Your task to perform on an android device: Go to Maps Image 0: 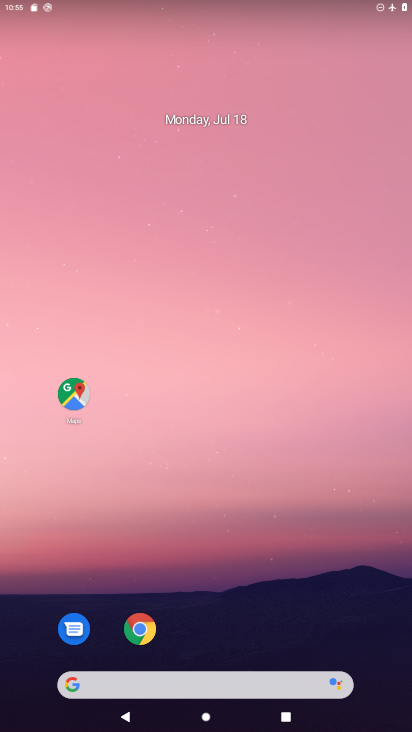
Step 0: drag from (301, 600) to (213, 99)
Your task to perform on an android device: Go to Maps Image 1: 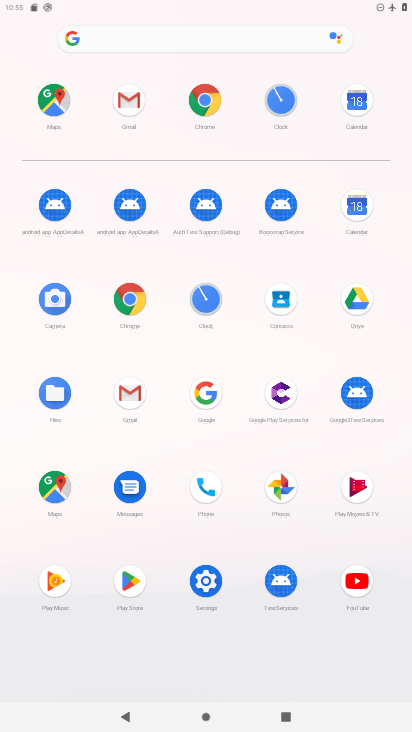
Step 1: click (60, 106)
Your task to perform on an android device: Go to Maps Image 2: 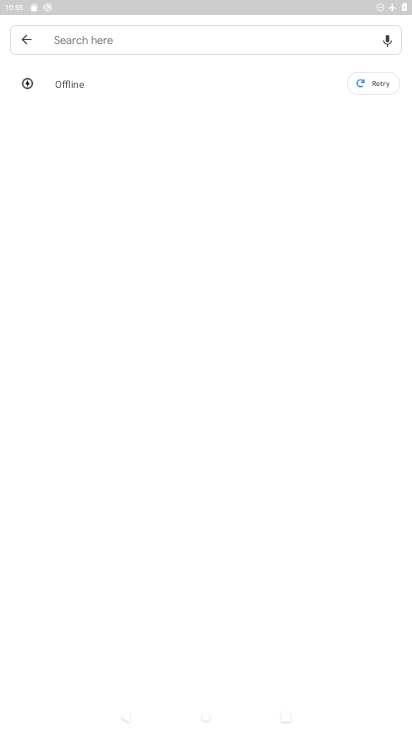
Step 2: click (29, 39)
Your task to perform on an android device: Go to Maps Image 3: 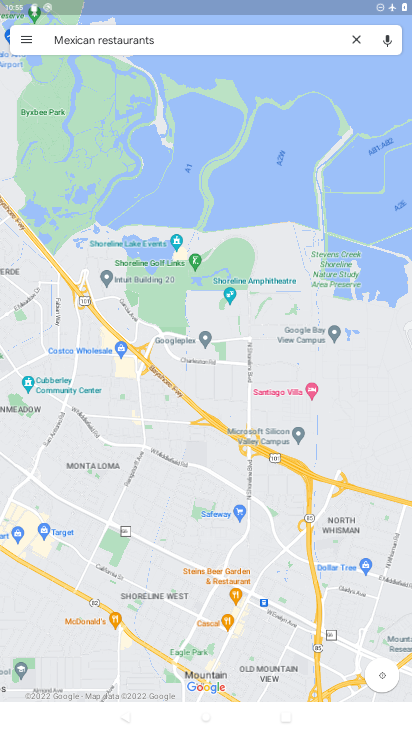
Step 3: task complete